Your task to perform on an android device: What's the weather today? Image 0: 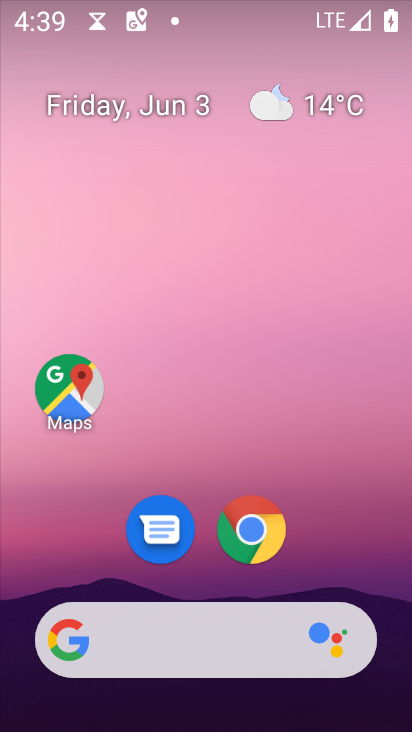
Step 0: click (310, 104)
Your task to perform on an android device: What's the weather today? Image 1: 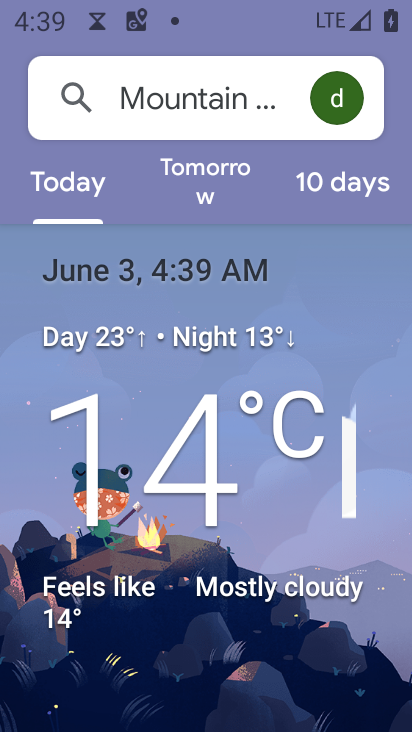
Step 1: task complete